Your task to perform on an android device: Open Google Chrome Image 0: 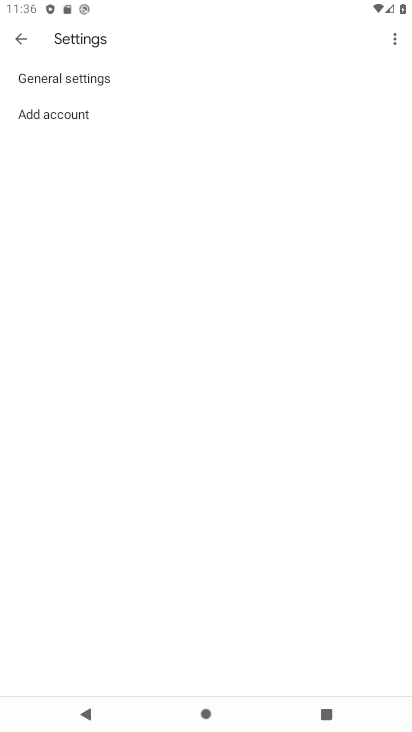
Step 0: press home button
Your task to perform on an android device: Open Google Chrome Image 1: 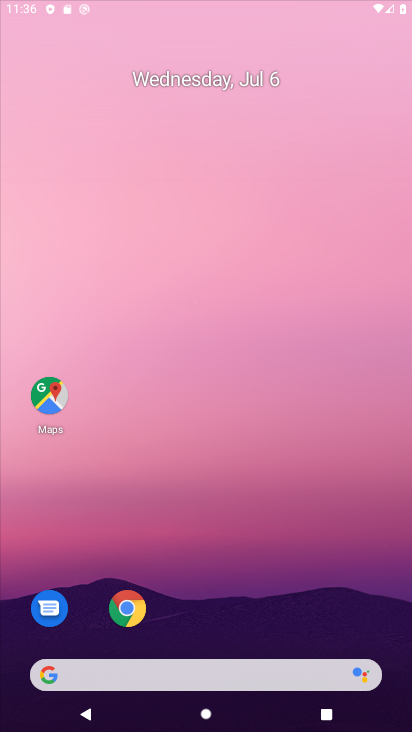
Step 1: drag from (199, 639) to (330, 7)
Your task to perform on an android device: Open Google Chrome Image 2: 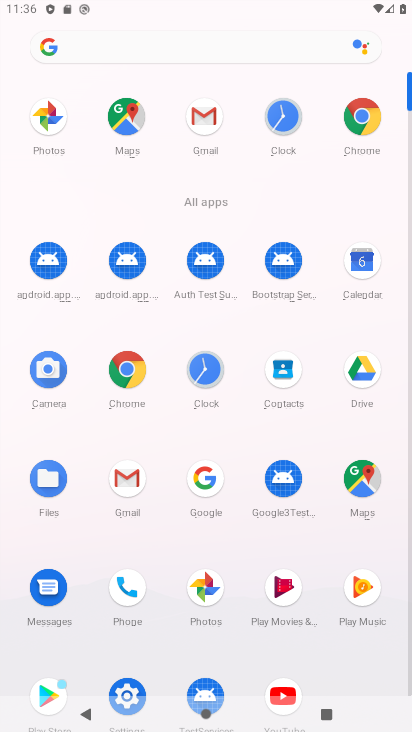
Step 2: click (338, 117)
Your task to perform on an android device: Open Google Chrome Image 3: 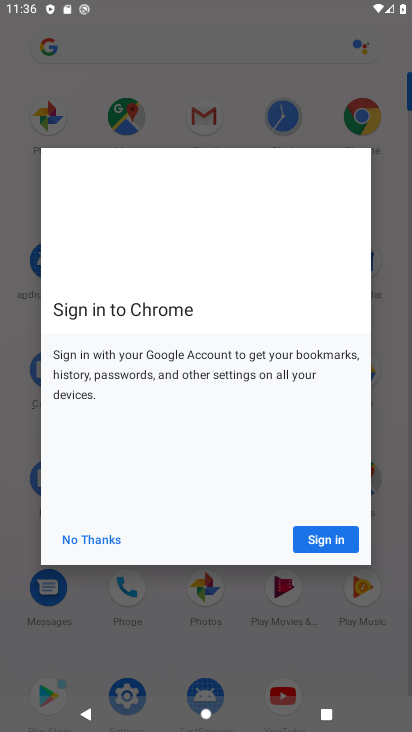
Step 3: click (117, 538)
Your task to perform on an android device: Open Google Chrome Image 4: 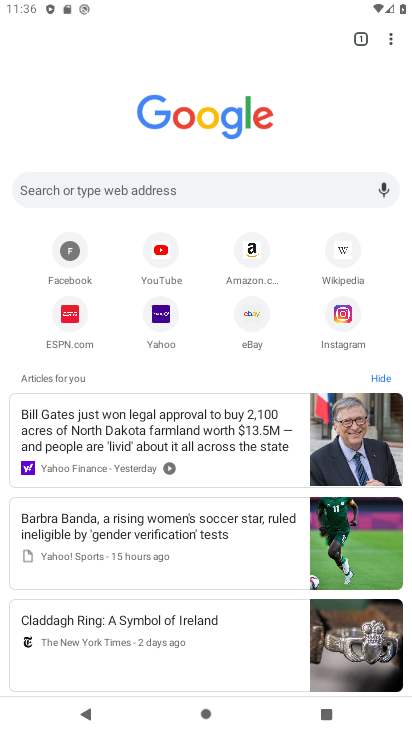
Step 4: task complete